Your task to perform on an android device: open app "Booking.com: Hotels and more" (install if not already installed), go to login, and select forgot password Image 0: 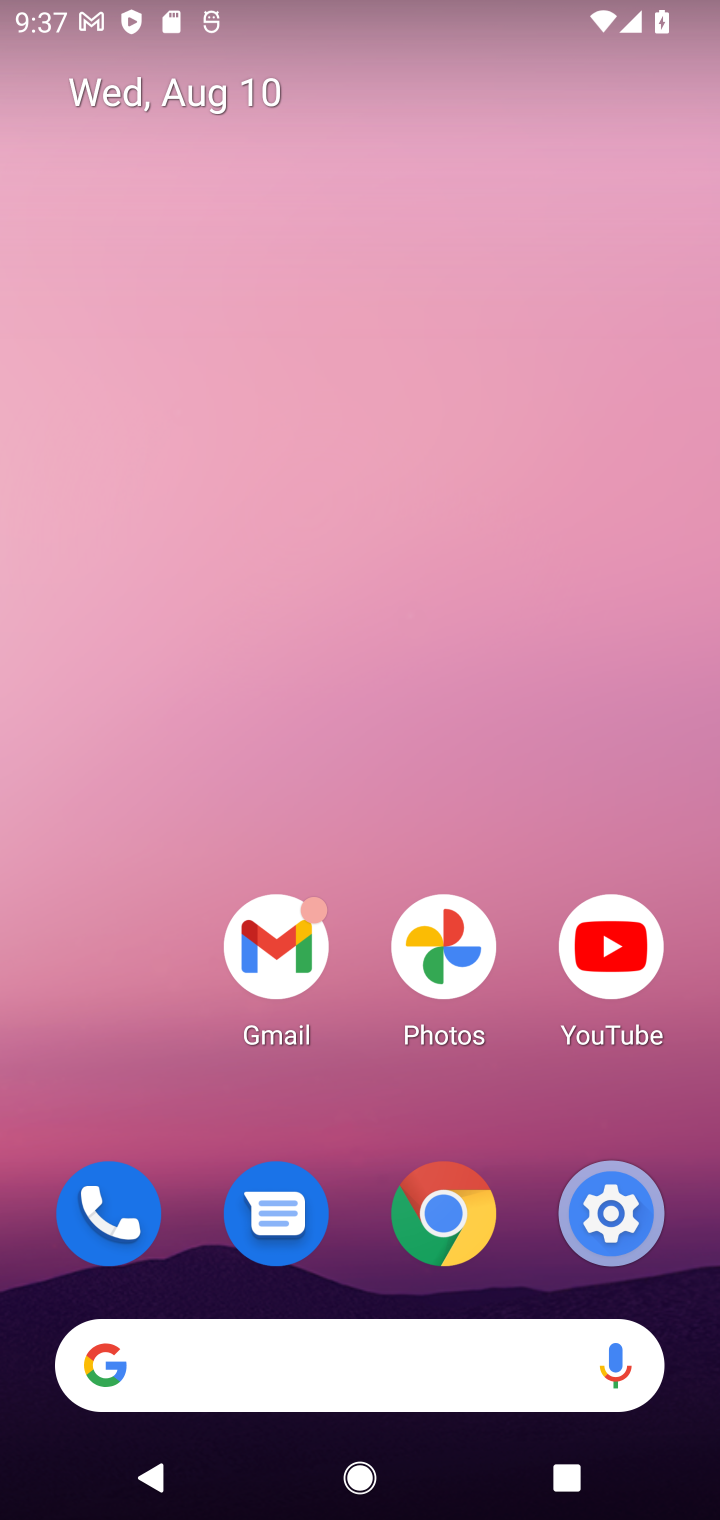
Step 0: drag from (151, 947) to (211, 97)
Your task to perform on an android device: open app "Booking.com: Hotels and more" (install if not already installed), go to login, and select forgot password Image 1: 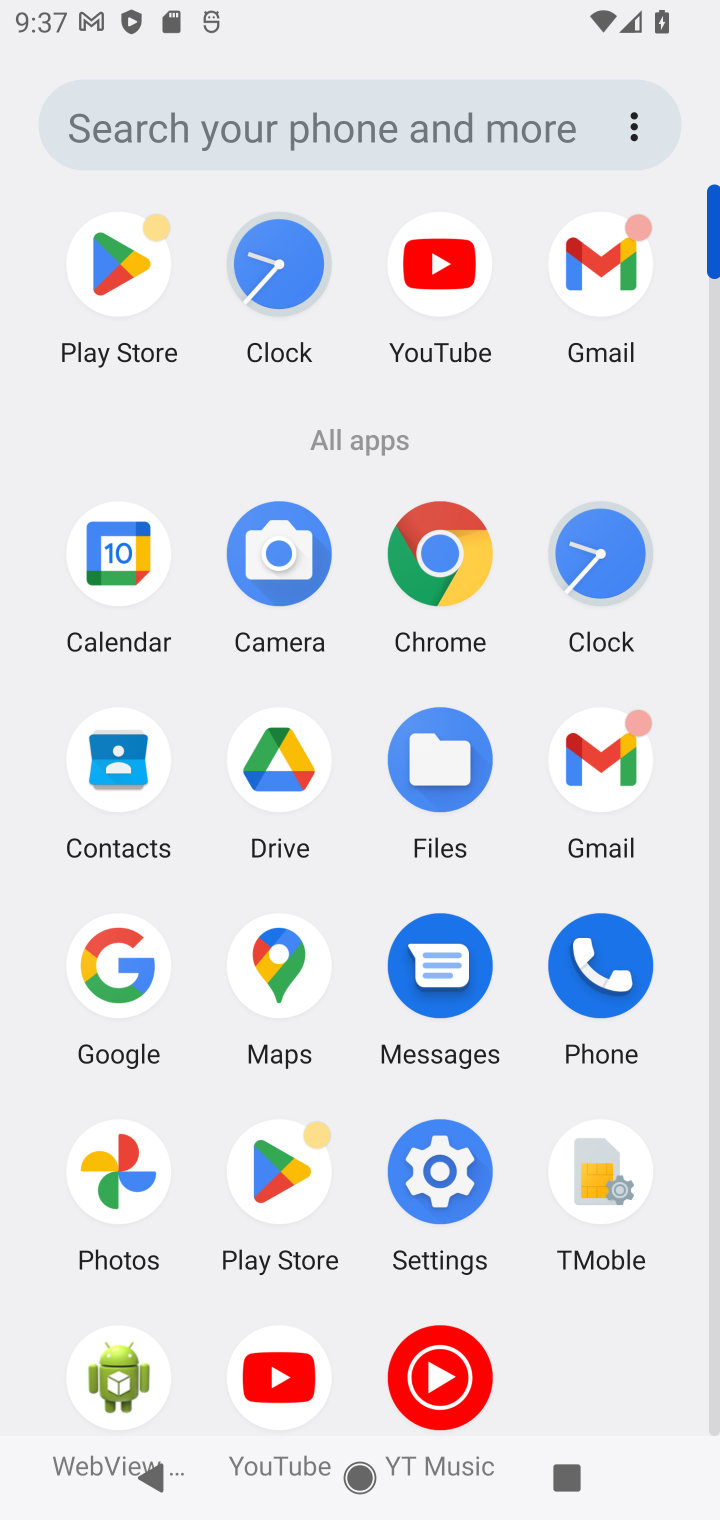
Step 1: click (297, 1166)
Your task to perform on an android device: open app "Booking.com: Hotels and more" (install if not already installed), go to login, and select forgot password Image 2: 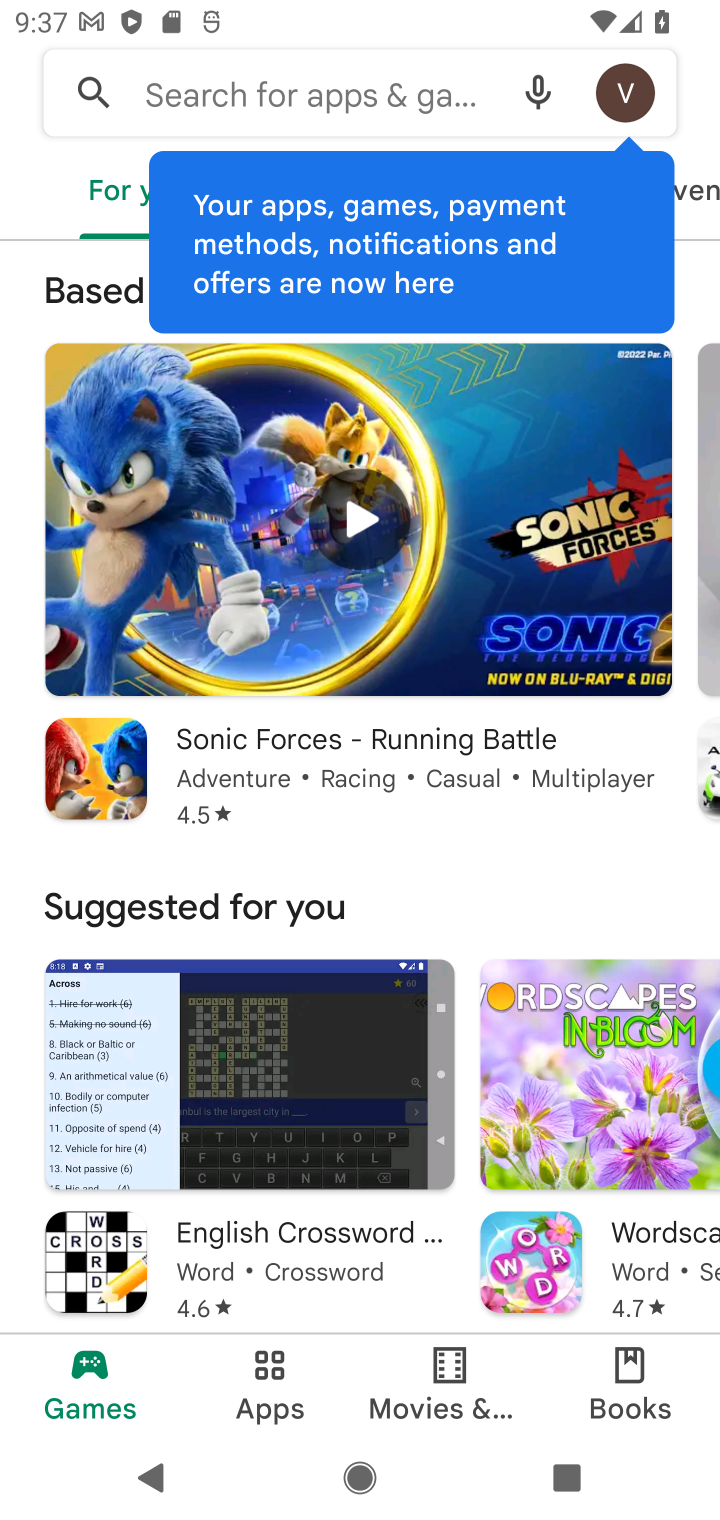
Step 2: click (351, 87)
Your task to perform on an android device: open app "Booking.com: Hotels and more" (install if not already installed), go to login, and select forgot password Image 3: 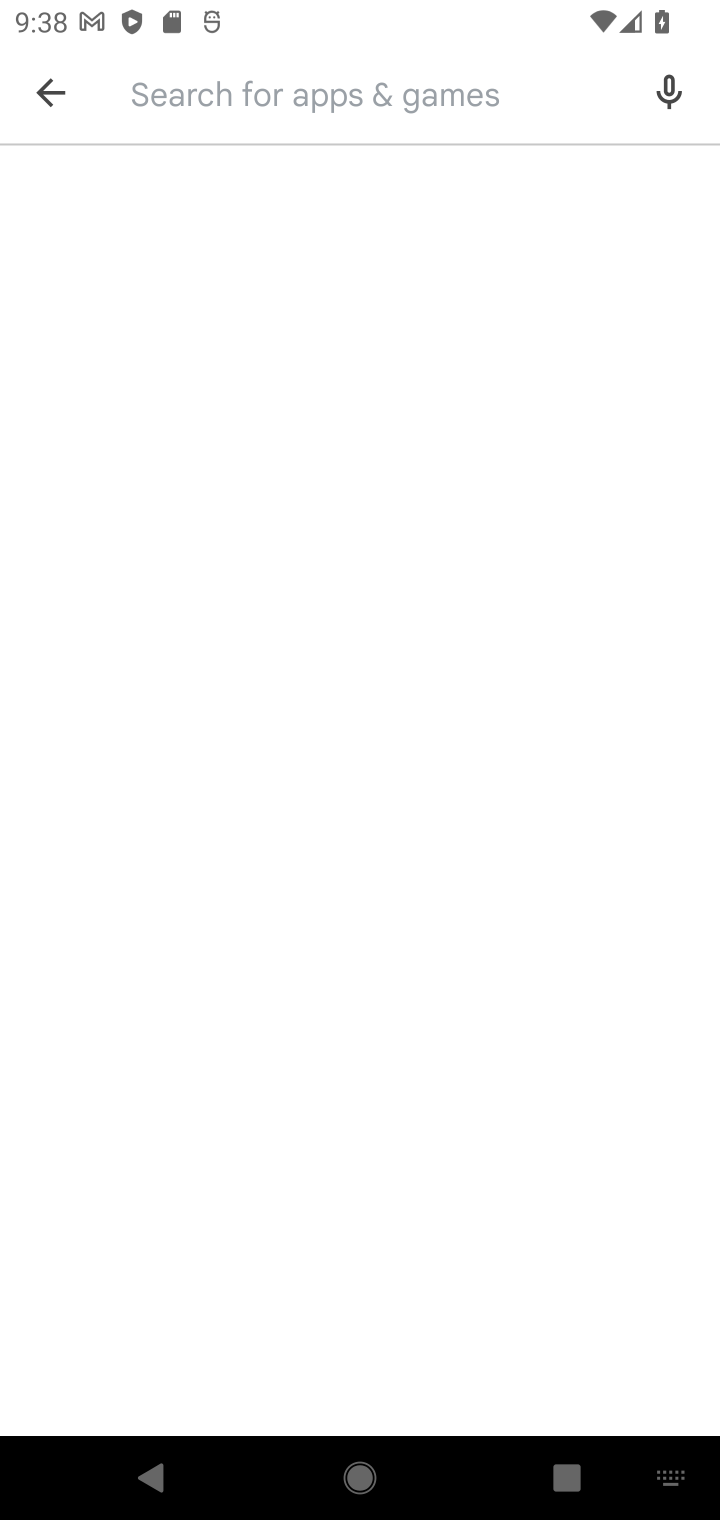
Step 3: press enter
Your task to perform on an android device: open app "Booking.com: Hotels and more" (install if not already installed), go to login, and select forgot password Image 4: 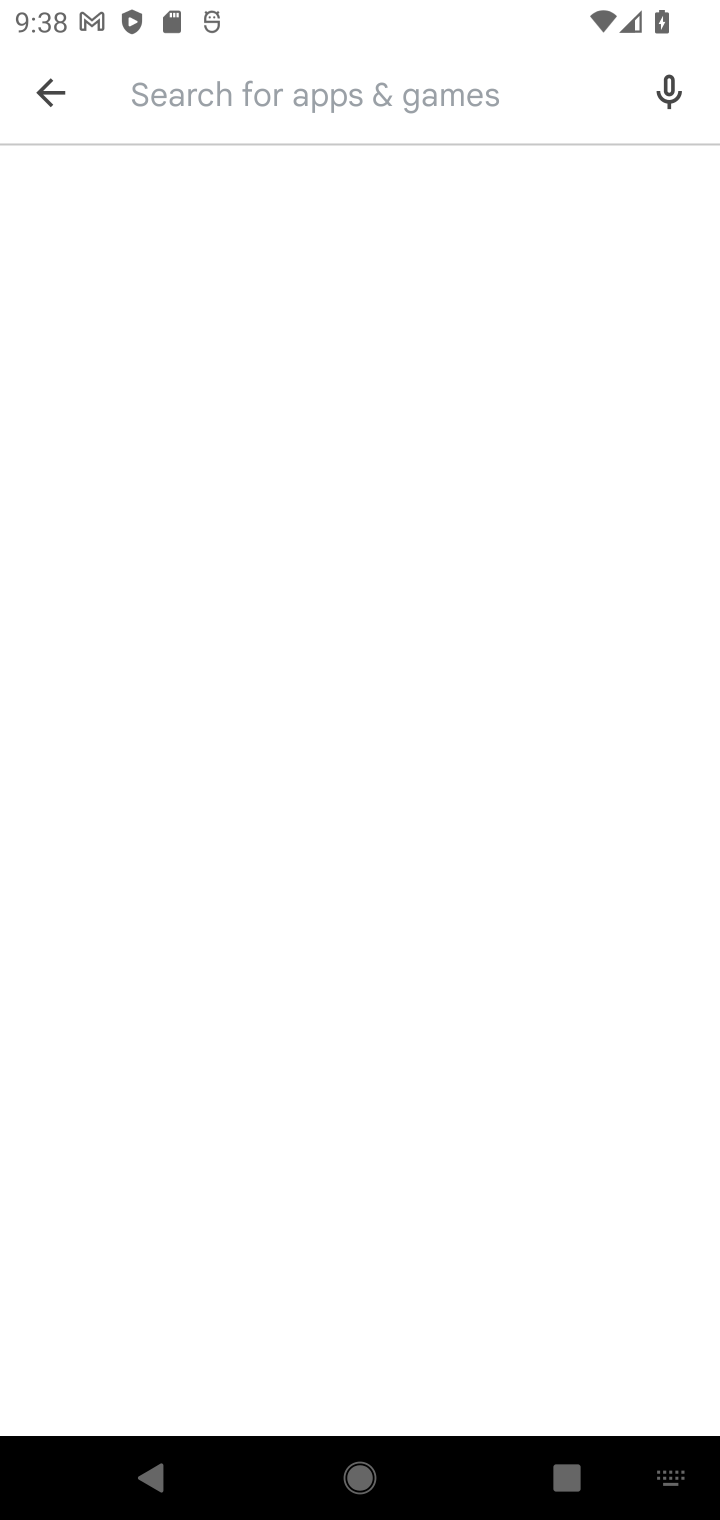
Step 4: type "Booking.com: Hotels and more"
Your task to perform on an android device: open app "Booking.com: Hotels and more" (install if not already installed), go to login, and select forgot password Image 5: 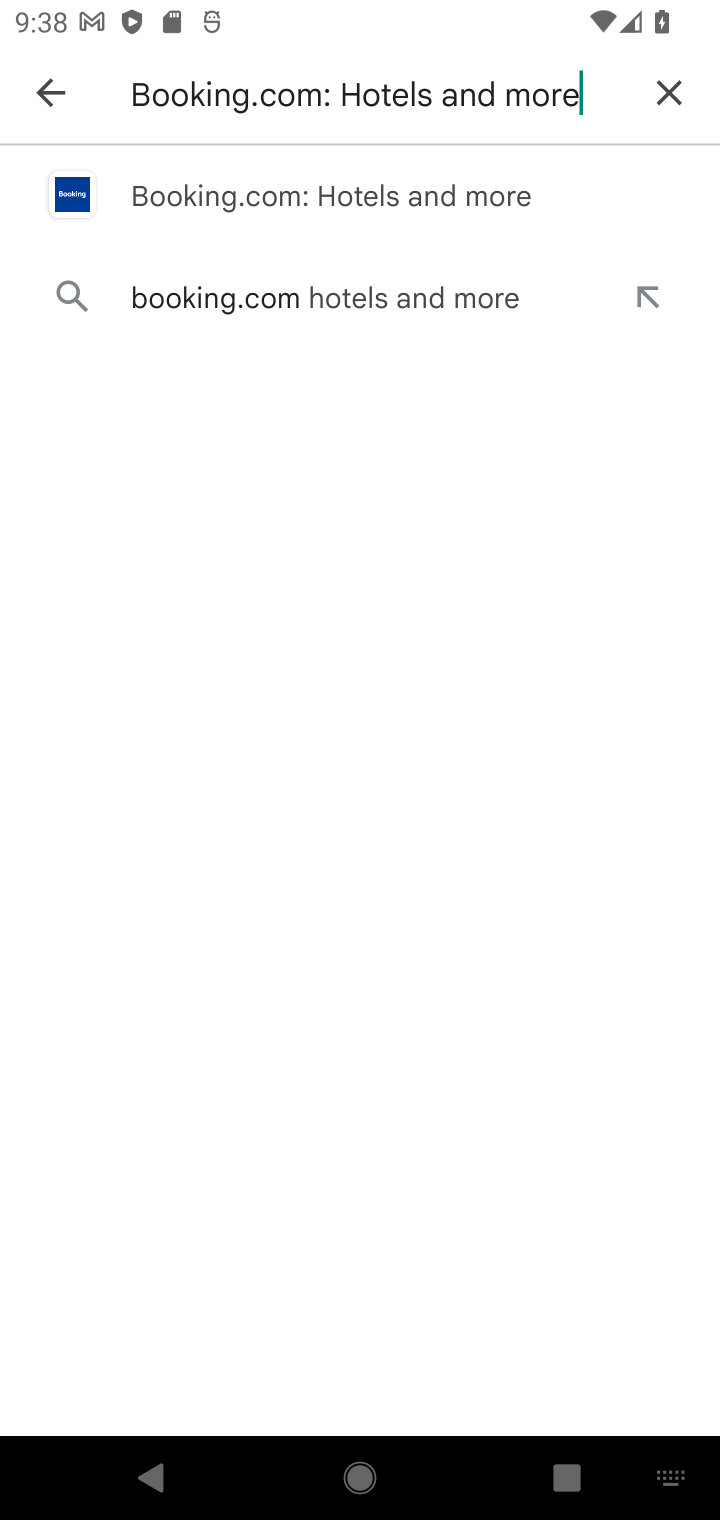
Step 5: click (422, 203)
Your task to perform on an android device: open app "Booking.com: Hotels and more" (install if not already installed), go to login, and select forgot password Image 6: 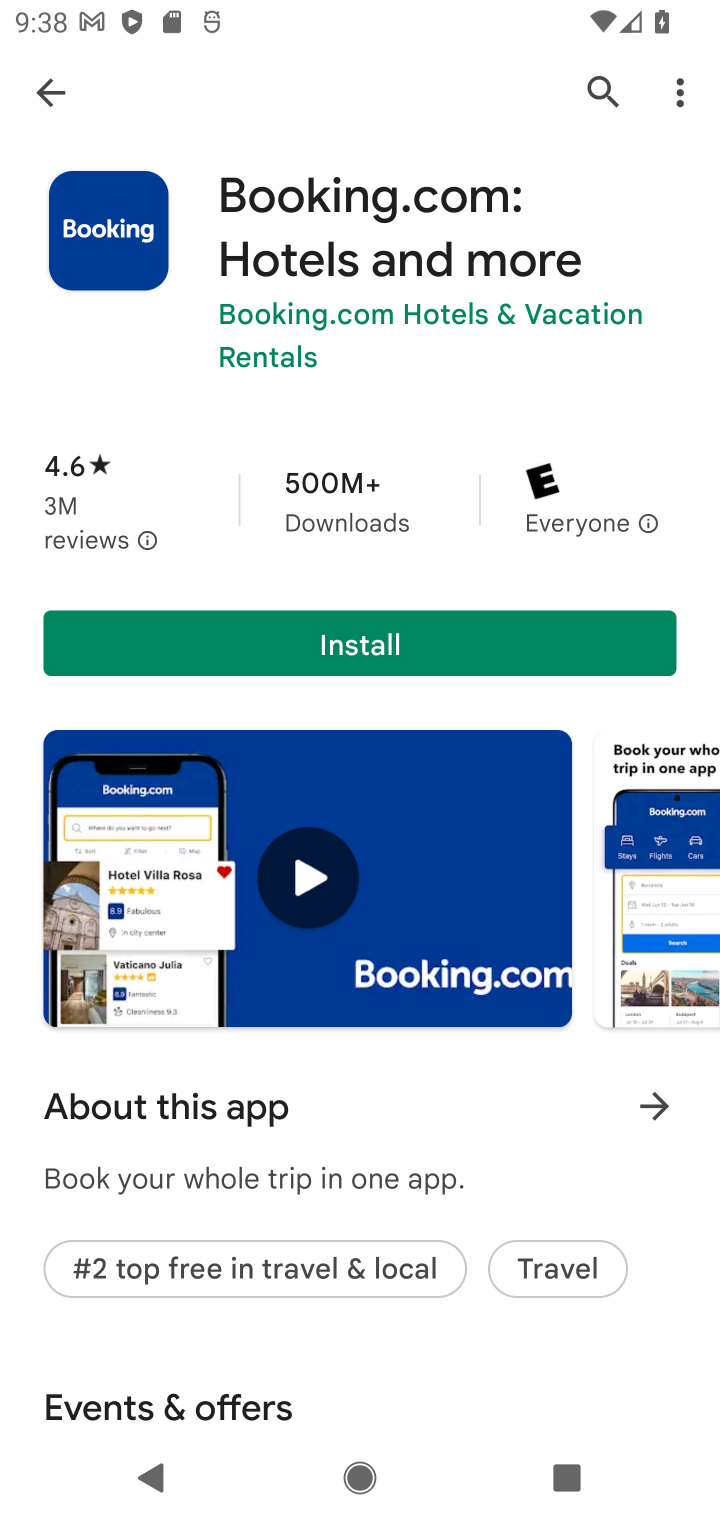
Step 6: click (554, 642)
Your task to perform on an android device: open app "Booking.com: Hotels and more" (install if not already installed), go to login, and select forgot password Image 7: 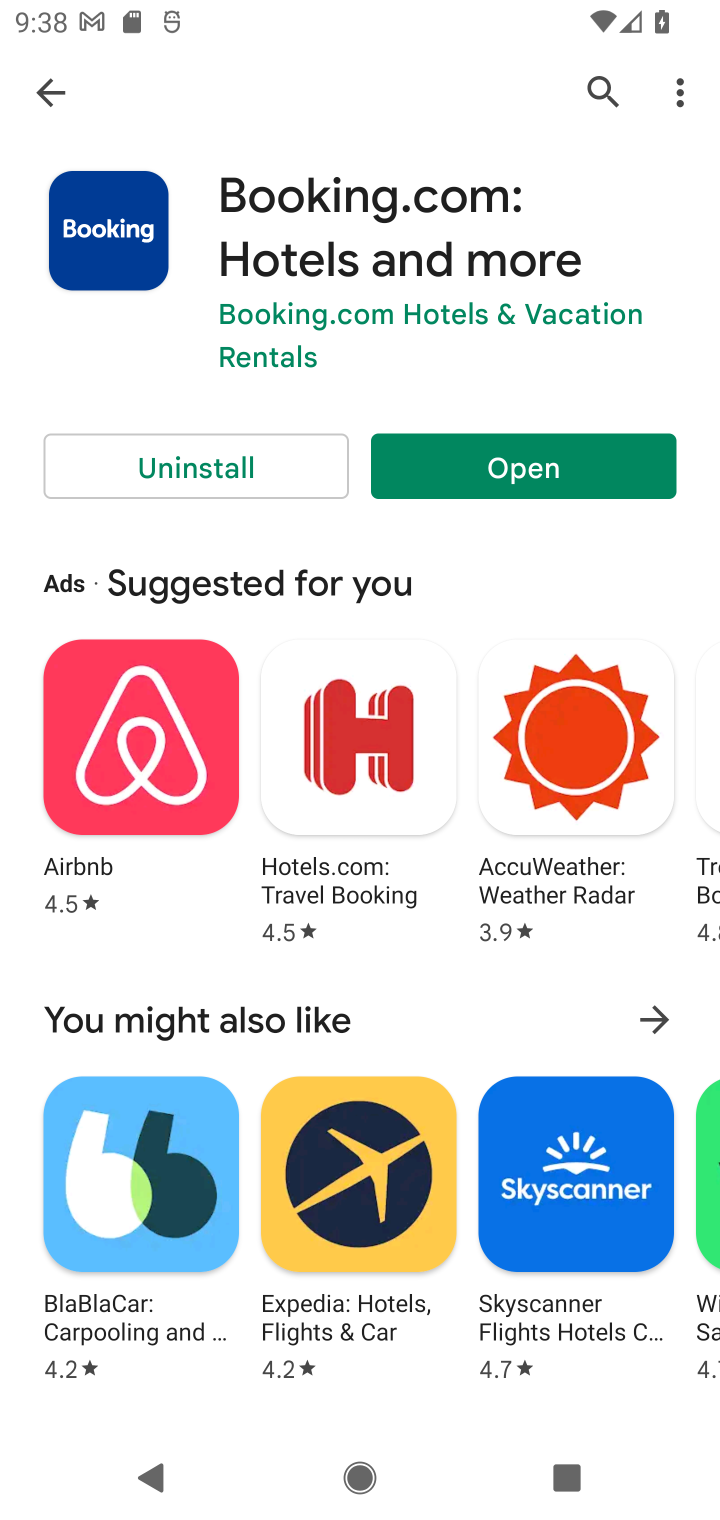
Step 7: click (587, 467)
Your task to perform on an android device: open app "Booking.com: Hotels and more" (install if not already installed), go to login, and select forgot password Image 8: 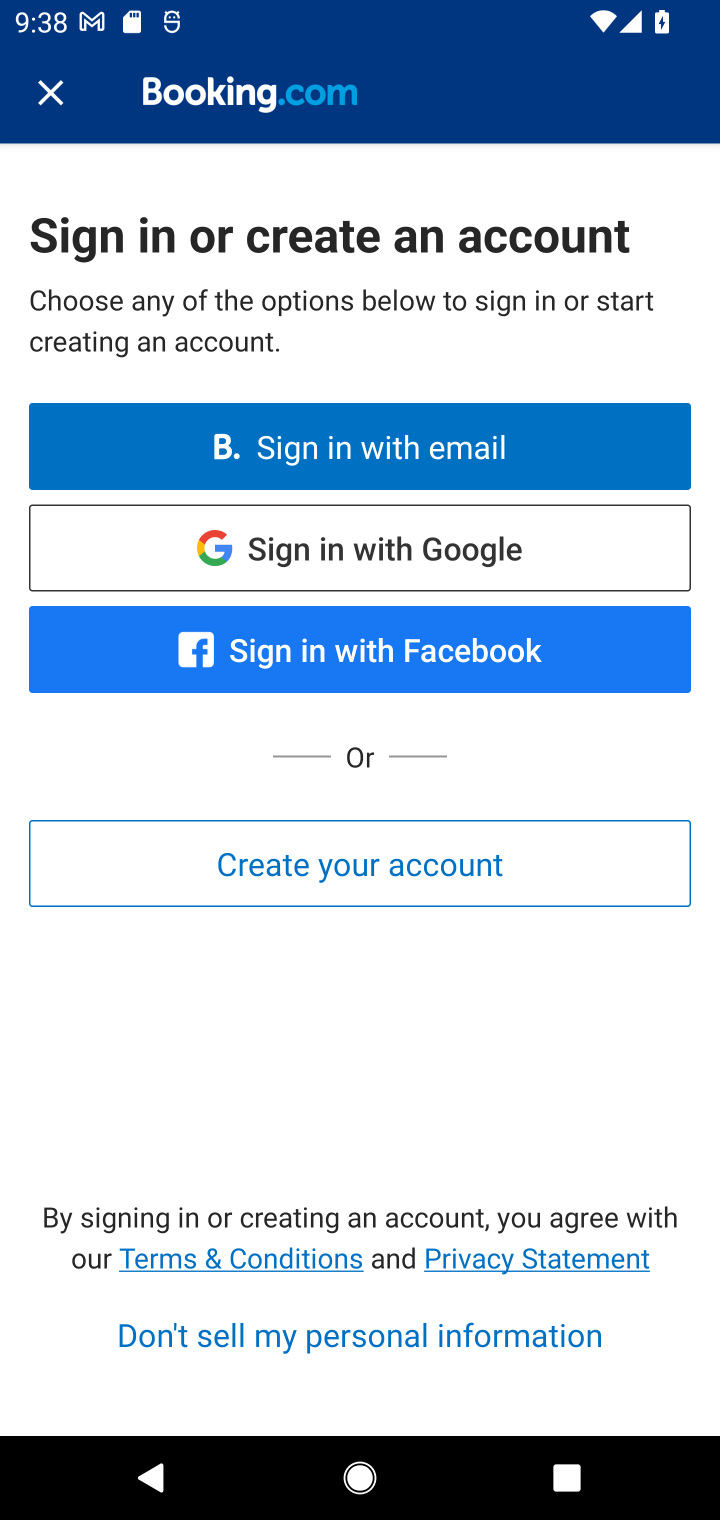
Step 8: task complete